Your task to perform on an android device: find which apps use the phone's location Image 0: 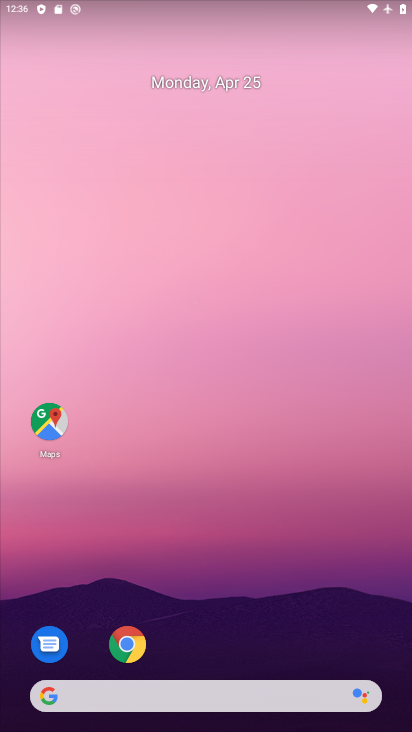
Step 0: drag from (247, 647) to (250, 195)
Your task to perform on an android device: find which apps use the phone's location Image 1: 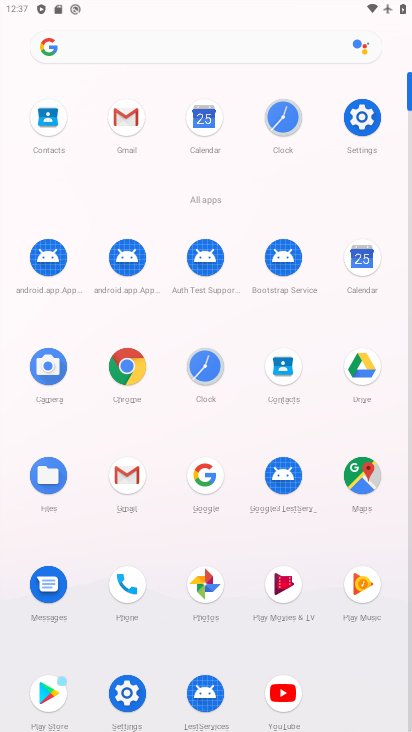
Step 1: click (403, 716)
Your task to perform on an android device: find which apps use the phone's location Image 2: 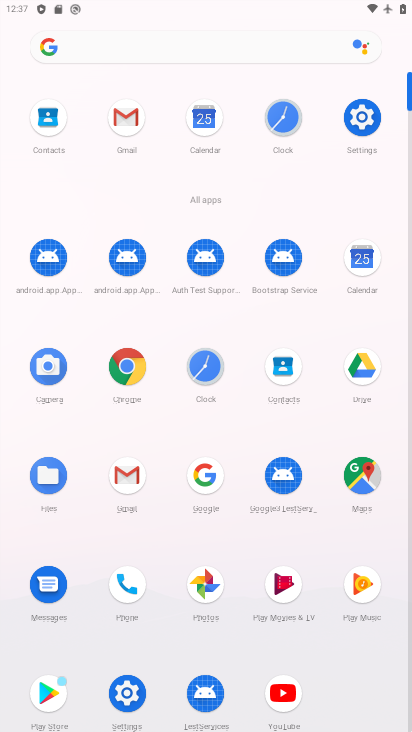
Step 2: click (411, 719)
Your task to perform on an android device: find which apps use the phone's location Image 3: 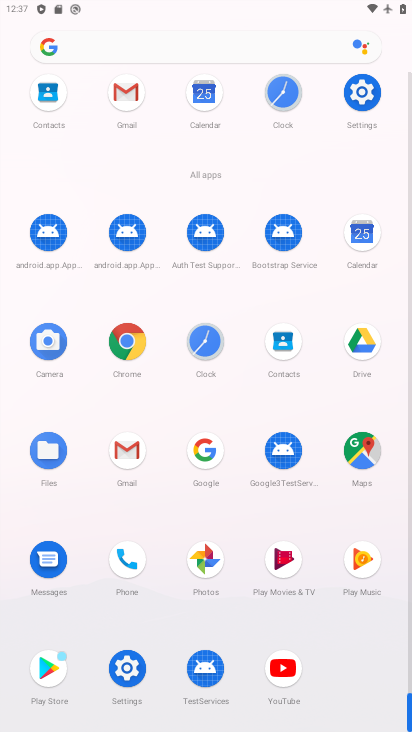
Step 3: click (411, 719)
Your task to perform on an android device: find which apps use the phone's location Image 4: 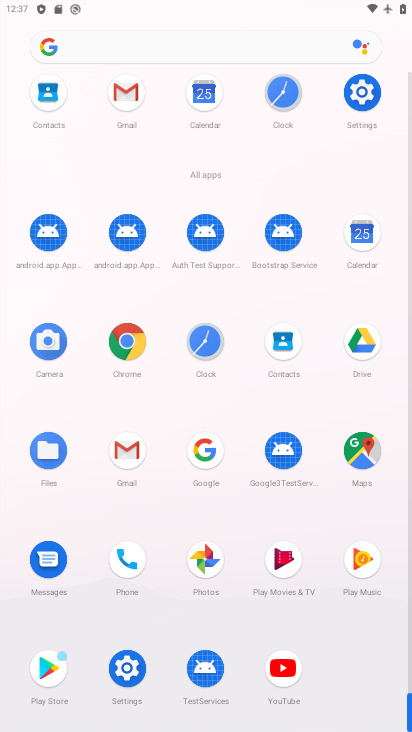
Step 4: click (365, 684)
Your task to perform on an android device: find which apps use the phone's location Image 5: 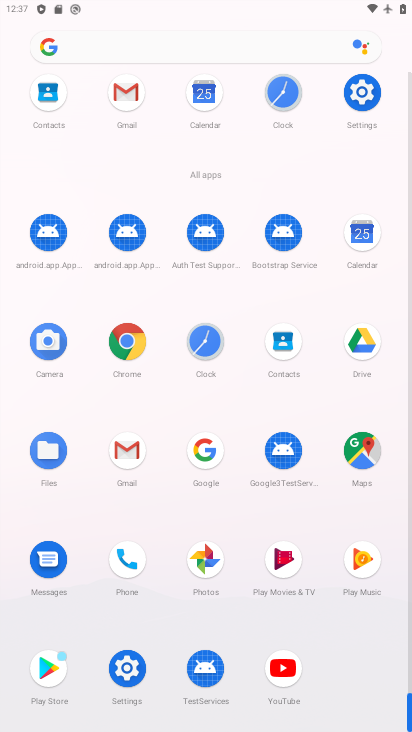
Step 5: click (132, 666)
Your task to perform on an android device: find which apps use the phone's location Image 6: 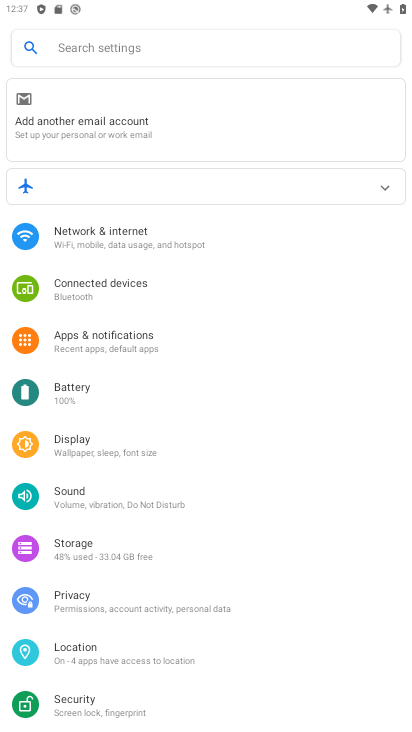
Step 6: drag from (149, 598) to (196, 368)
Your task to perform on an android device: find which apps use the phone's location Image 7: 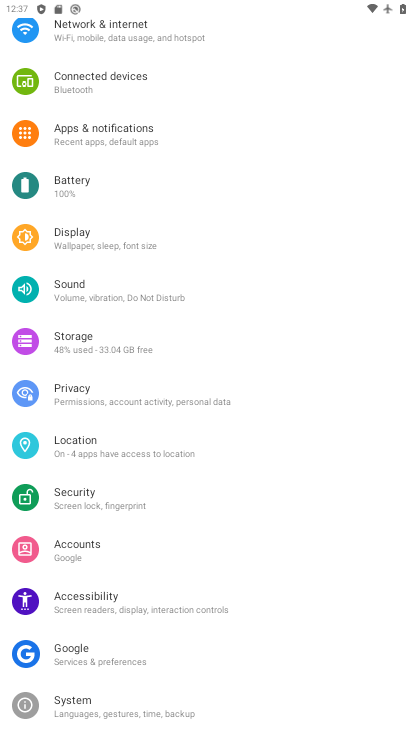
Step 7: click (170, 430)
Your task to perform on an android device: find which apps use the phone's location Image 8: 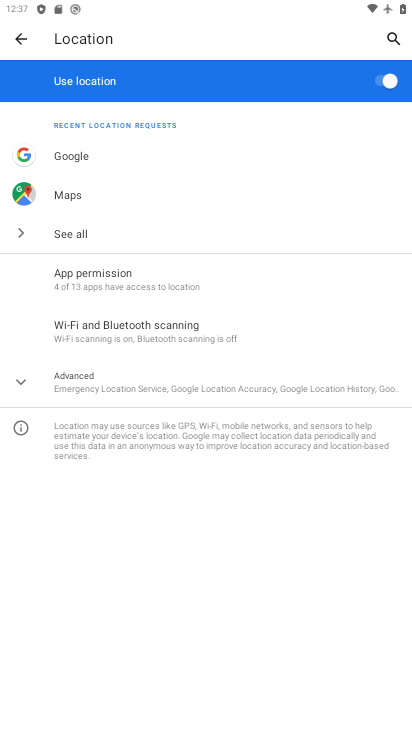
Step 8: click (133, 397)
Your task to perform on an android device: find which apps use the phone's location Image 9: 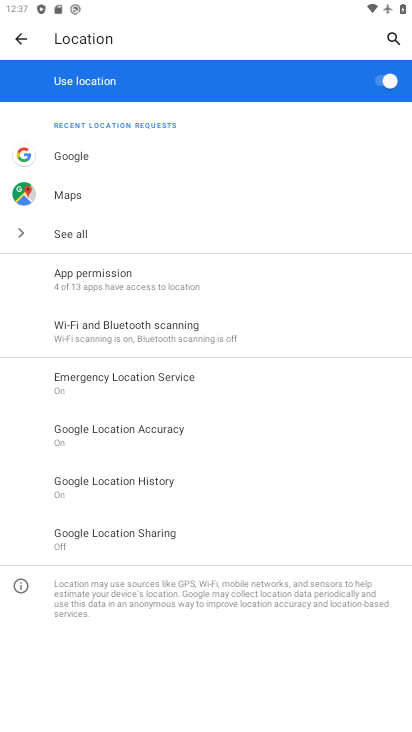
Step 9: click (118, 285)
Your task to perform on an android device: find which apps use the phone's location Image 10: 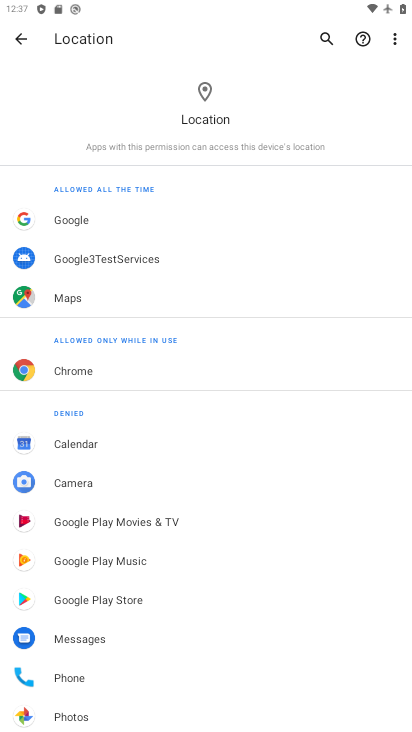
Step 10: task complete